Your task to perform on an android device: read, delete, or share a saved page in the chrome app Image 0: 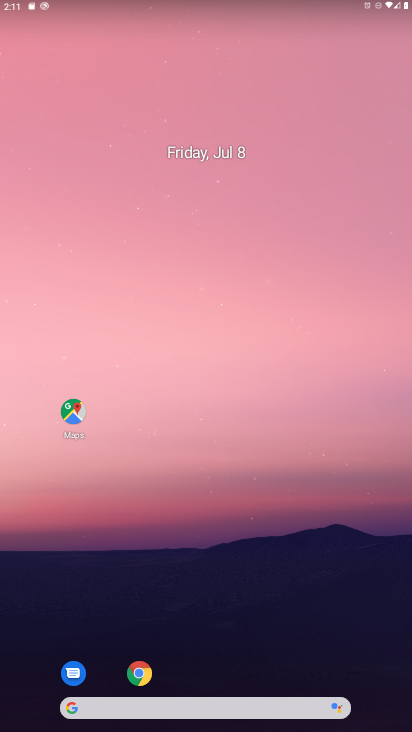
Step 0: click (141, 667)
Your task to perform on an android device: read, delete, or share a saved page in the chrome app Image 1: 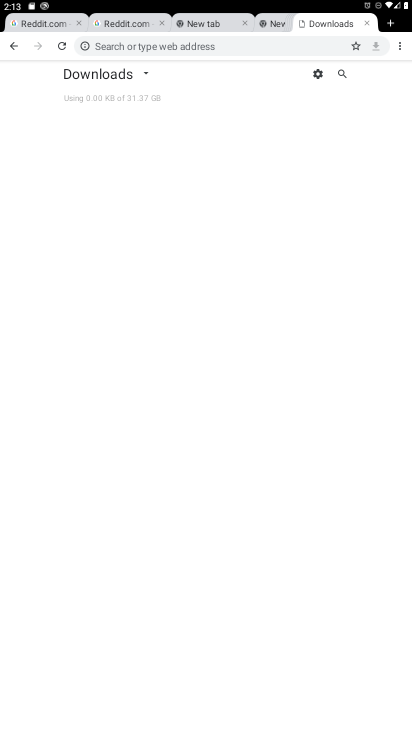
Step 1: task complete